Your task to perform on an android device: Open eBay Image 0: 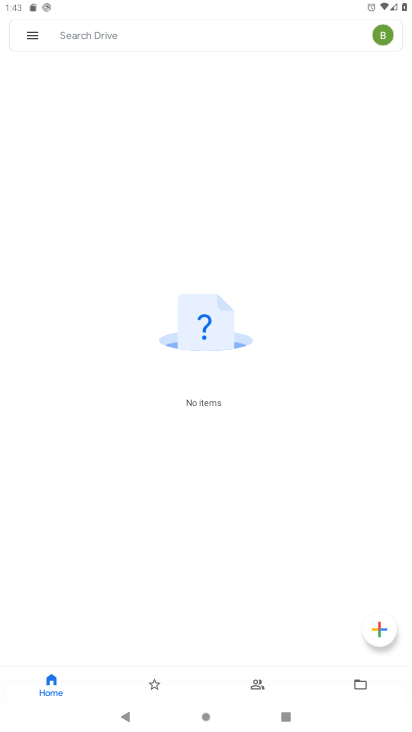
Step 0: press home button
Your task to perform on an android device: Open eBay Image 1: 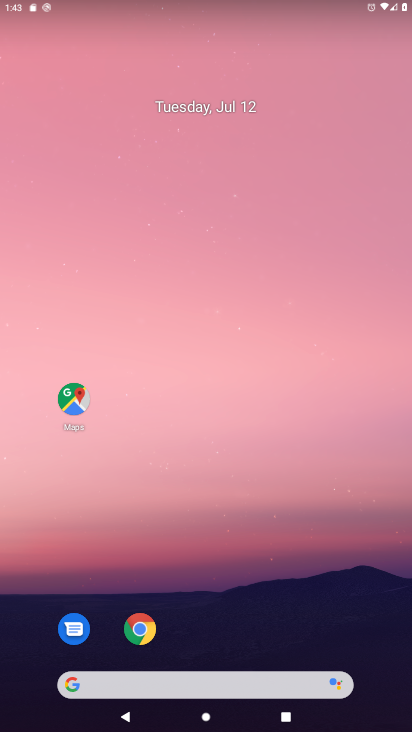
Step 1: drag from (285, 700) to (363, 7)
Your task to perform on an android device: Open eBay Image 2: 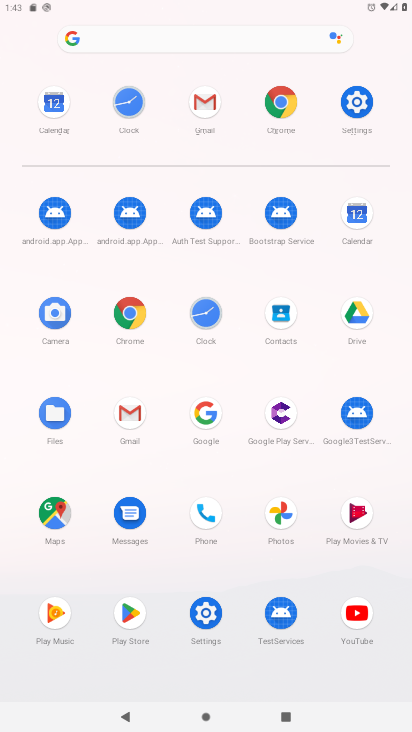
Step 2: click (133, 308)
Your task to perform on an android device: Open eBay Image 3: 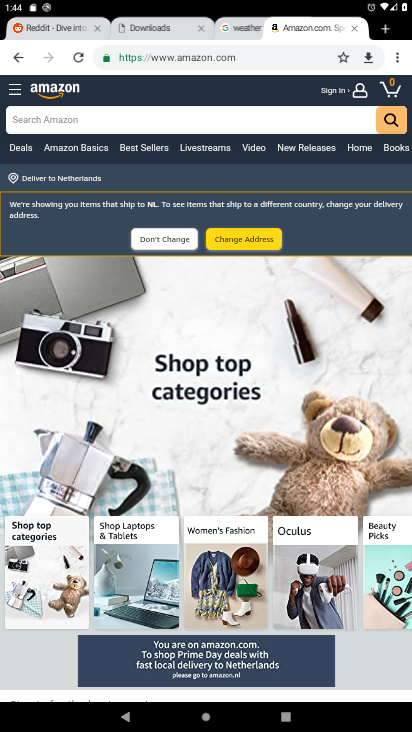
Step 3: click (398, 54)
Your task to perform on an android device: Open eBay Image 4: 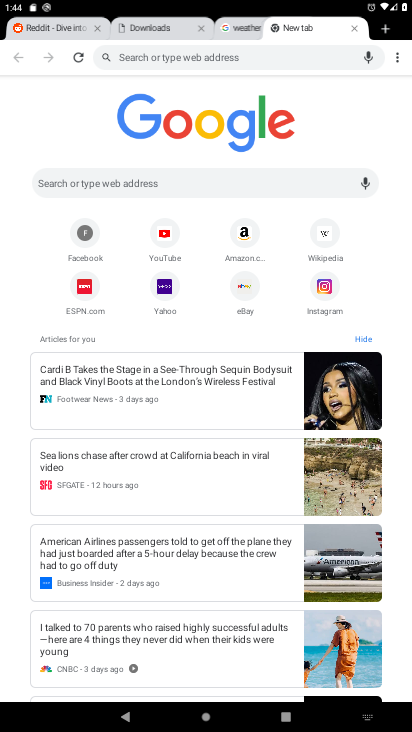
Step 4: click (249, 288)
Your task to perform on an android device: Open eBay Image 5: 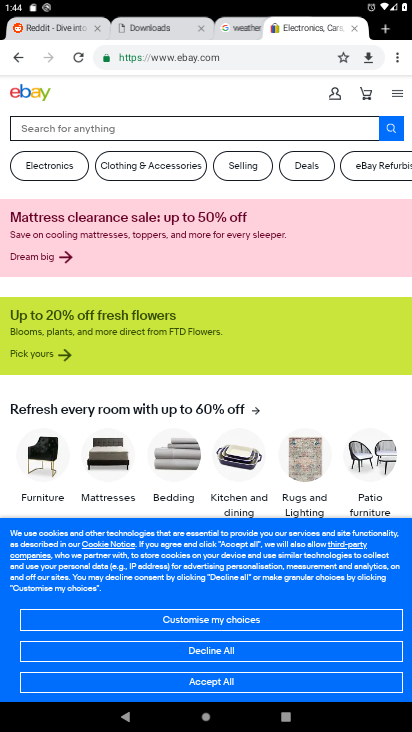
Step 5: task complete